Your task to perform on an android device: Open Chrome and go to the settings page Image 0: 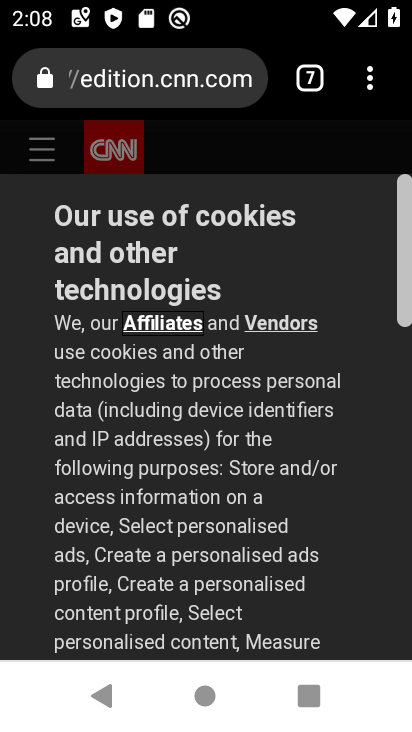
Step 0: press home button
Your task to perform on an android device: Open Chrome and go to the settings page Image 1: 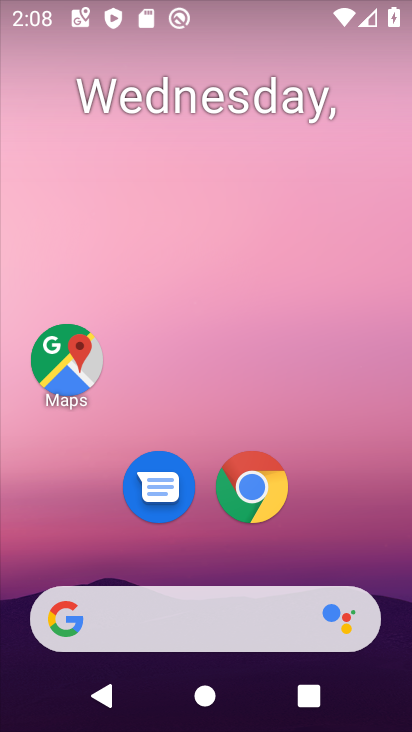
Step 1: click (249, 487)
Your task to perform on an android device: Open Chrome and go to the settings page Image 2: 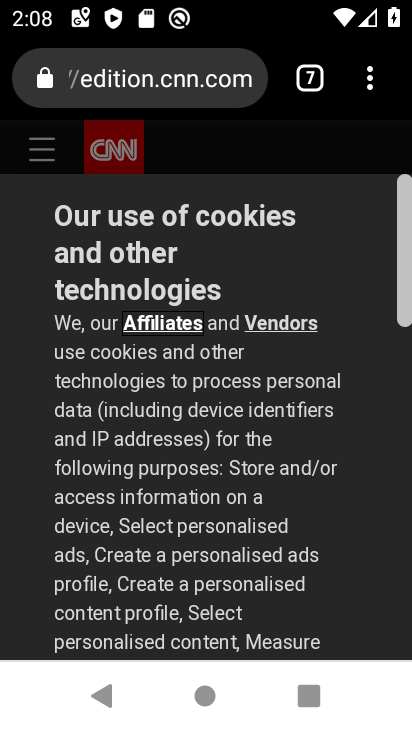
Step 2: click (366, 75)
Your task to perform on an android device: Open Chrome and go to the settings page Image 3: 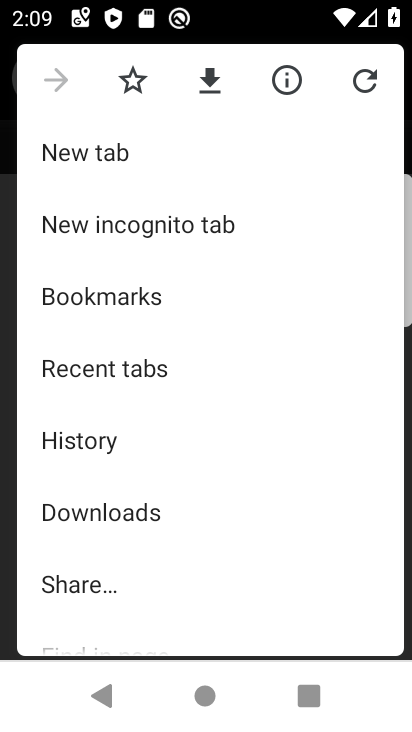
Step 3: drag from (253, 467) to (186, 179)
Your task to perform on an android device: Open Chrome and go to the settings page Image 4: 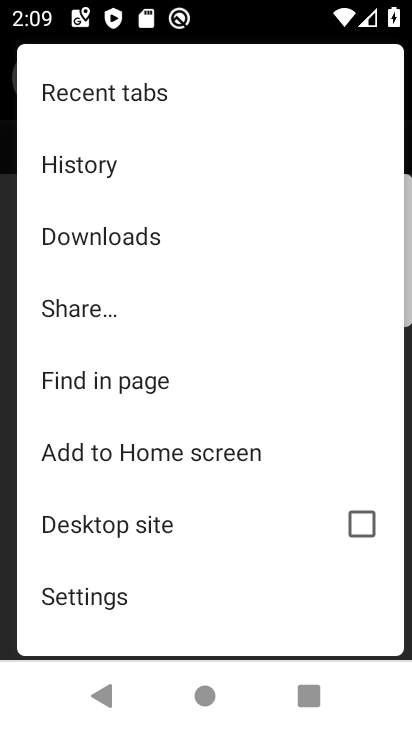
Step 4: click (79, 583)
Your task to perform on an android device: Open Chrome and go to the settings page Image 5: 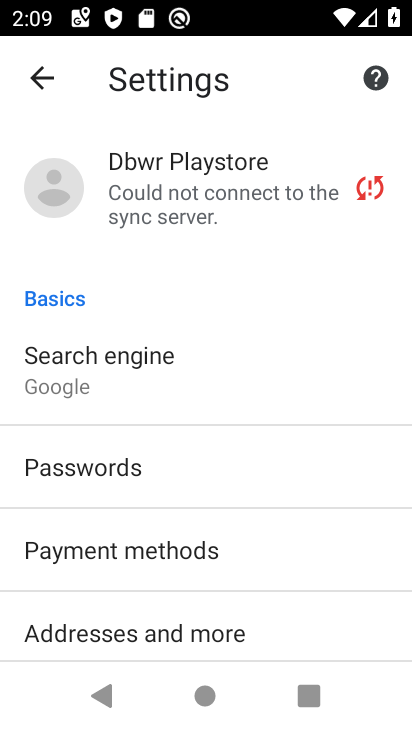
Step 5: task complete